Your task to perform on an android device: Go to notification settings Image 0: 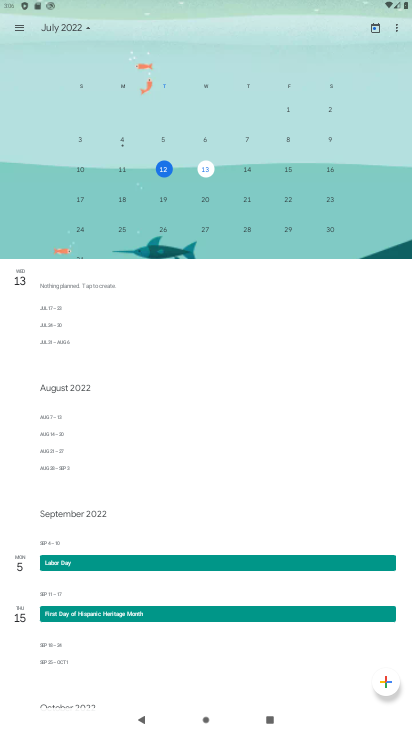
Step 0: press home button
Your task to perform on an android device: Go to notification settings Image 1: 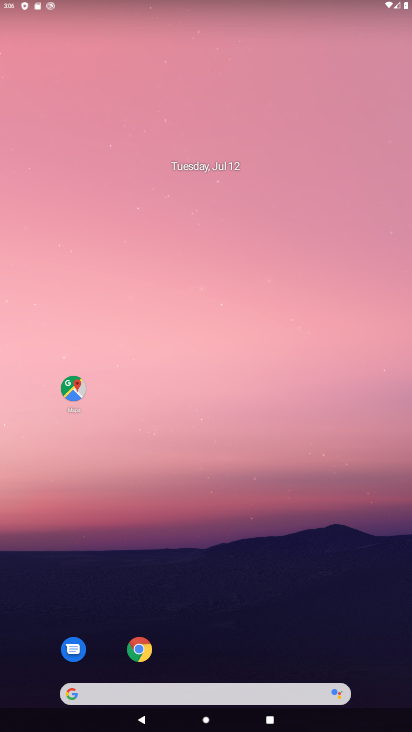
Step 1: drag from (168, 677) to (204, 182)
Your task to perform on an android device: Go to notification settings Image 2: 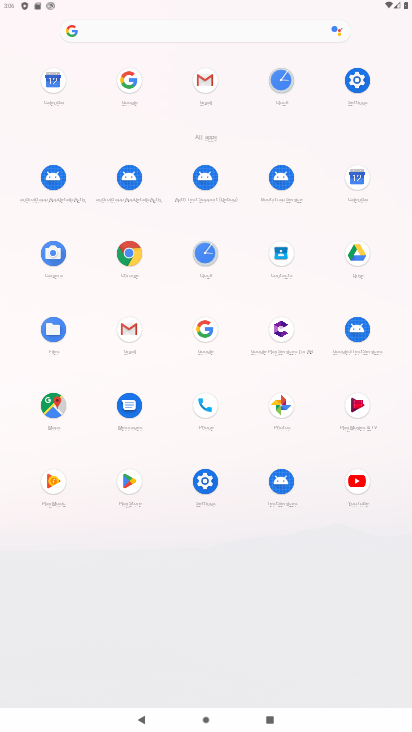
Step 2: click (354, 85)
Your task to perform on an android device: Go to notification settings Image 3: 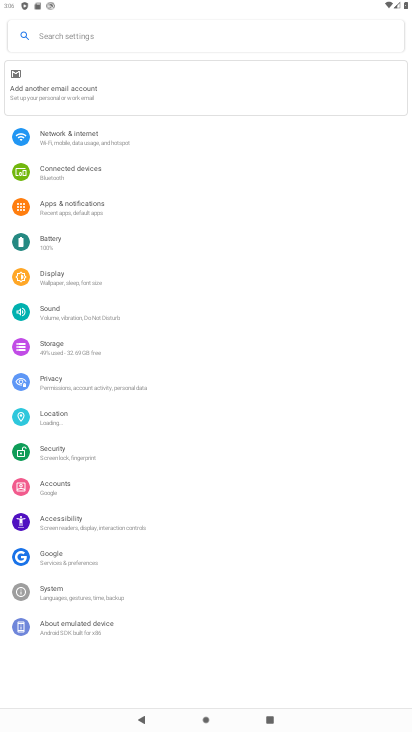
Step 3: click (56, 209)
Your task to perform on an android device: Go to notification settings Image 4: 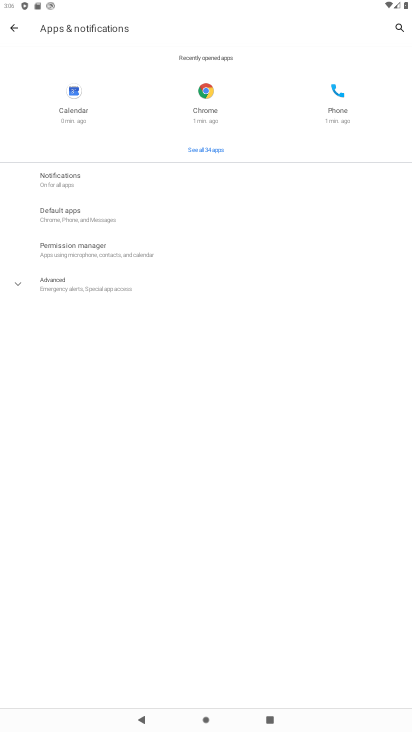
Step 4: click (76, 285)
Your task to perform on an android device: Go to notification settings Image 5: 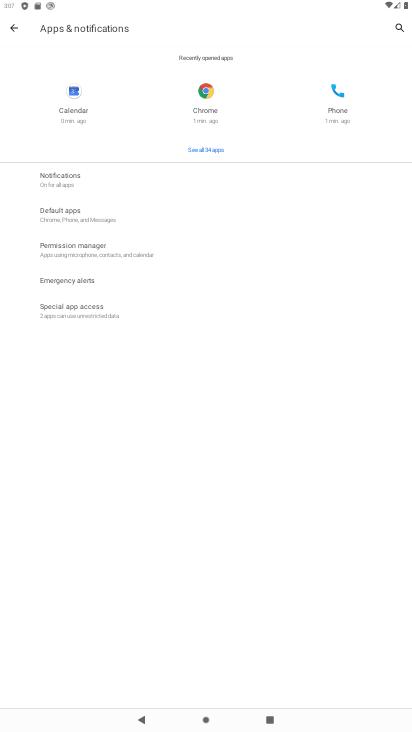
Step 5: task complete